Your task to perform on an android device: turn off smart reply in the gmail app Image 0: 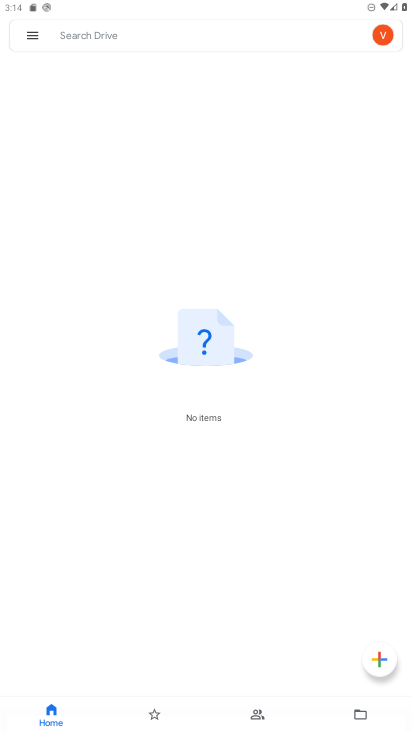
Step 0: press home button
Your task to perform on an android device: turn off smart reply in the gmail app Image 1: 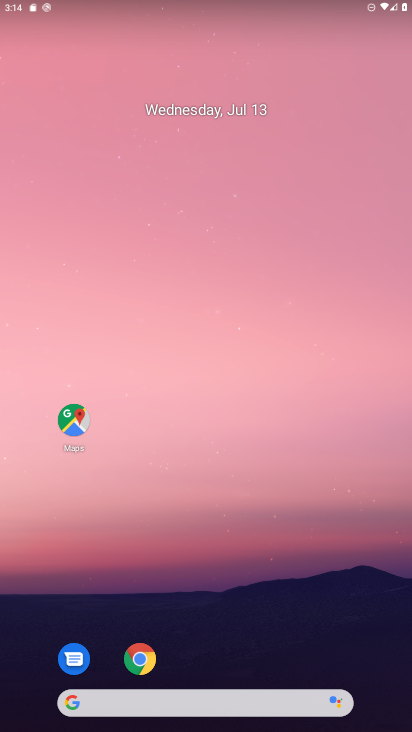
Step 1: drag from (386, 657) to (341, 117)
Your task to perform on an android device: turn off smart reply in the gmail app Image 2: 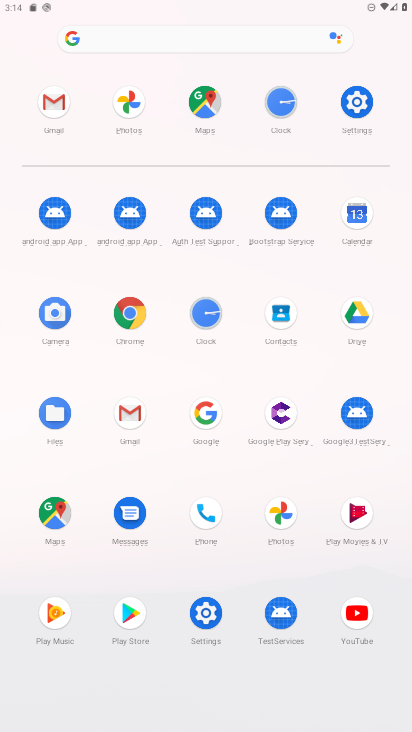
Step 2: click (130, 415)
Your task to perform on an android device: turn off smart reply in the gmail app Image 3: 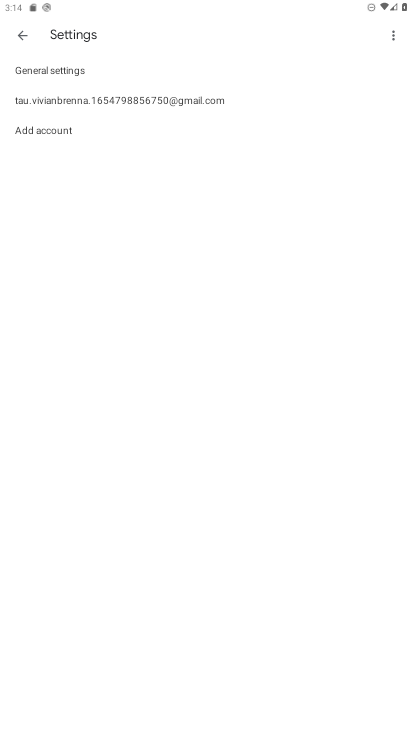
Step 3: click (92, 95)
Your task to perform on an android device: turn off smart reply in the gmail app Image 4: 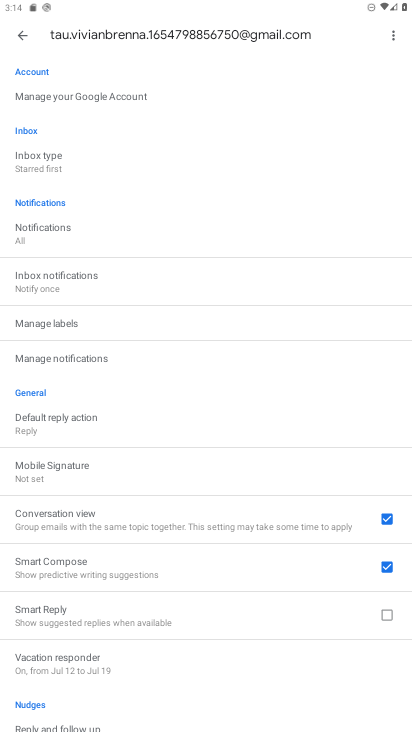
Step 4: task complete